Your task to perform on an android device: change text size in settings app Image 0: 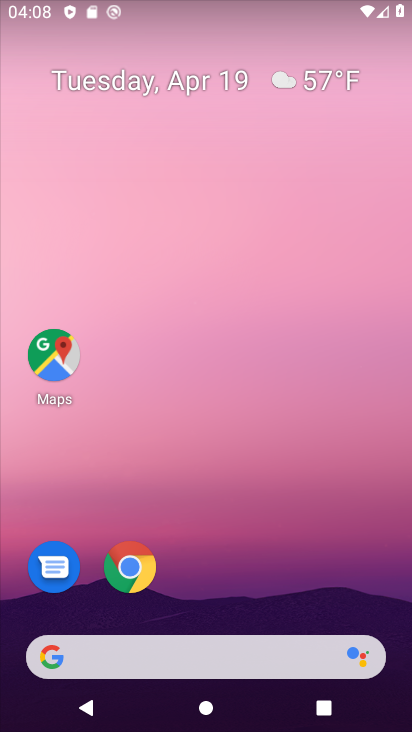
Step 0: drag from (340, 595) to (360, 162)
Your task to perform on an android device: change text size in settings app Image 1: 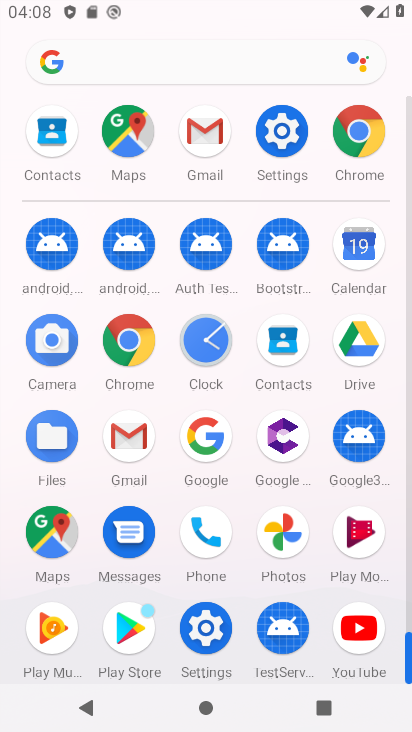
Step 1: click (287, 140)
Your task to perform on an android device: change text size in settings app Image 2: 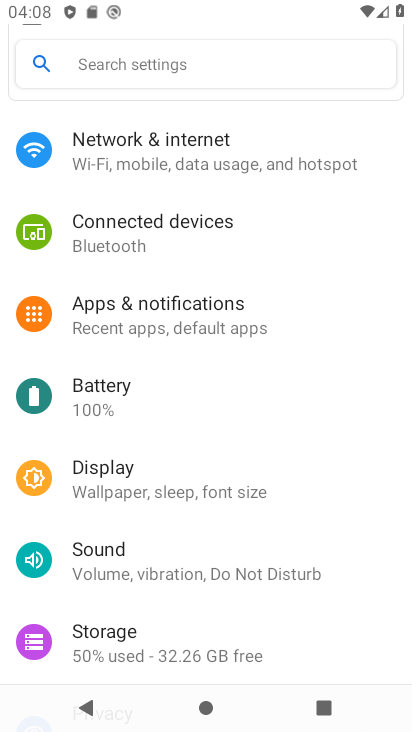
Step 2: drag from (353, 546) to (347, 422)
Your task to perform on an android device: change text size in settings app Image 3: 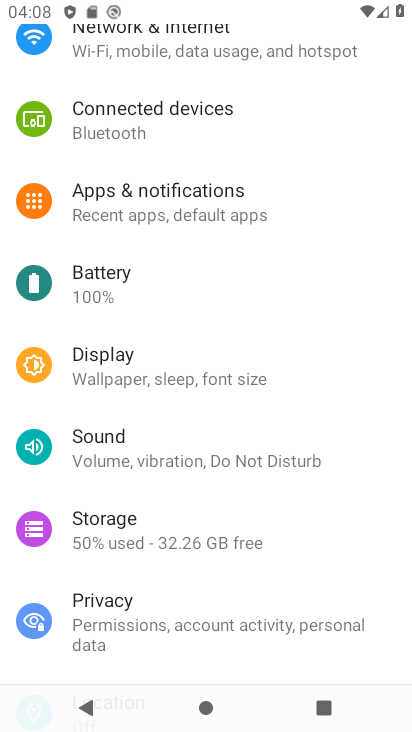
Step 3: drag from (382, 550) to (378, 394)
Your task to perform on an android device: change text size in settings app Image 4: 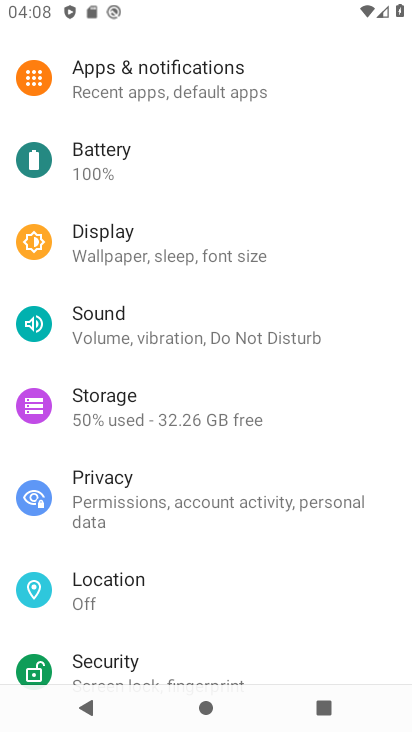
Step 4: drag from (377, 576) to (382, 430)
Your task to perform on an android device: change text size in settings app Image 5: 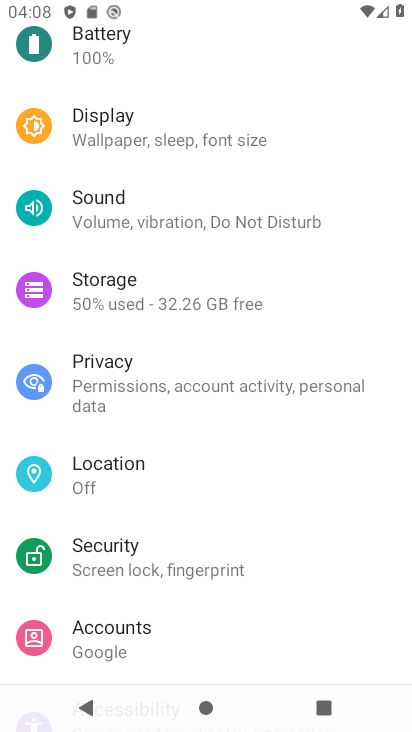
Step 5: drag from (363, 596) to (372, 416)
Your task to perform on an android device: change text size in settings app Image 6: 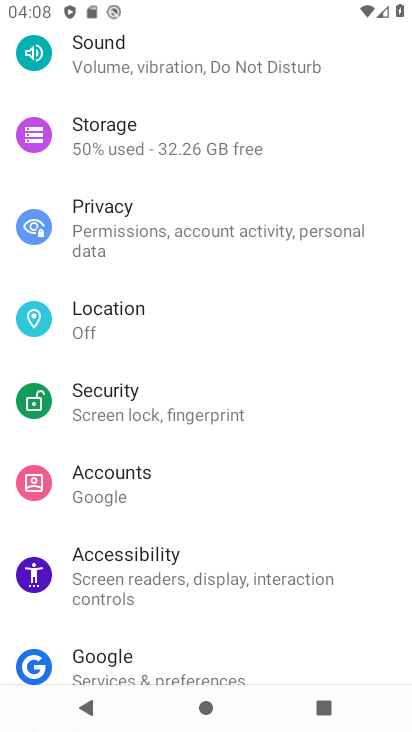
Step 6: drag from (362, 620) to (371, 469)
Your task to perform on an android device: change text size in settings app Image 7: 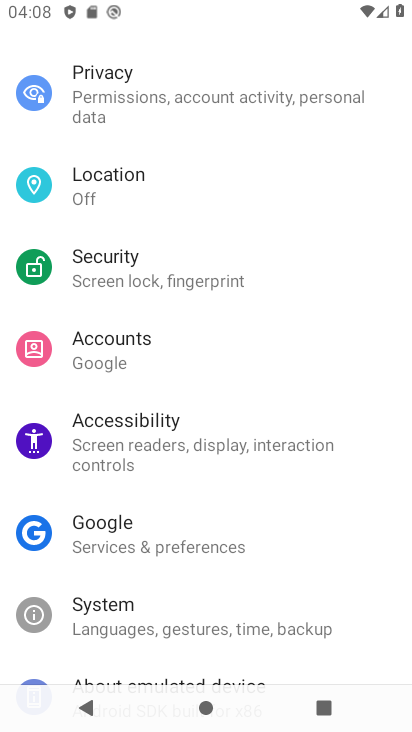
Step 7: drag from (373, 605) to (373, 475)
Your task to perform on an android device: change text size in settings app Image 8: 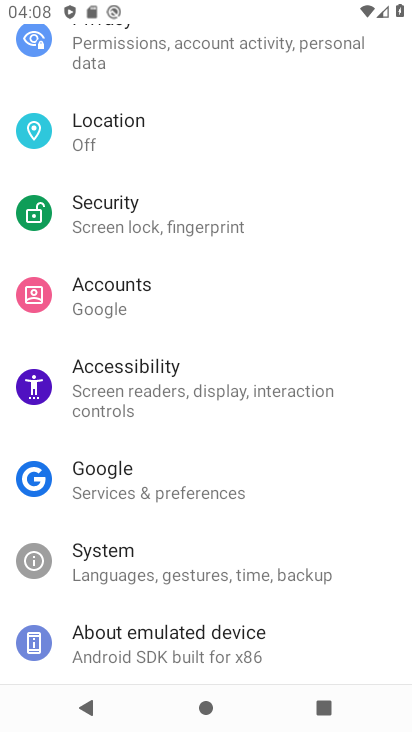
Step 8: drag from (363, 600) to (362, 459)
Your task to perform on an android device: change text size in settings app Image 9: 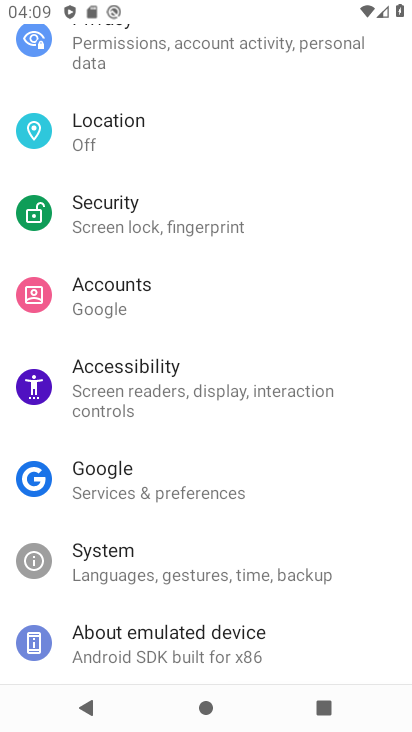
Step 9: drag from (370, 383) to (370, 508)
Your task to perform on an android device: change text size in settings app Image 10: 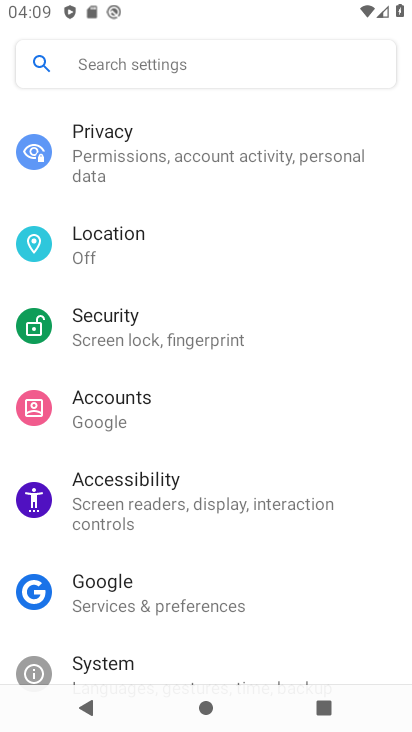
Step 10: drag from (370, 392) to (363, 530)
Your task to perform on an android device: change text size in settings app Image 11: 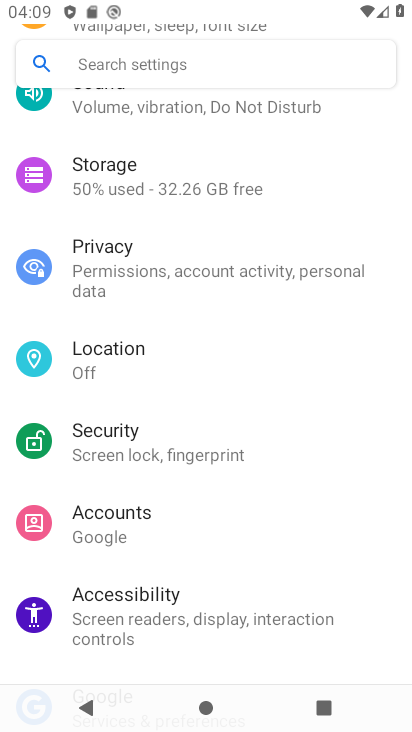
Step 11: drag from (373, 369) to (376, 499)
Your task to perform on an android device: change text size in settings app Image 12: 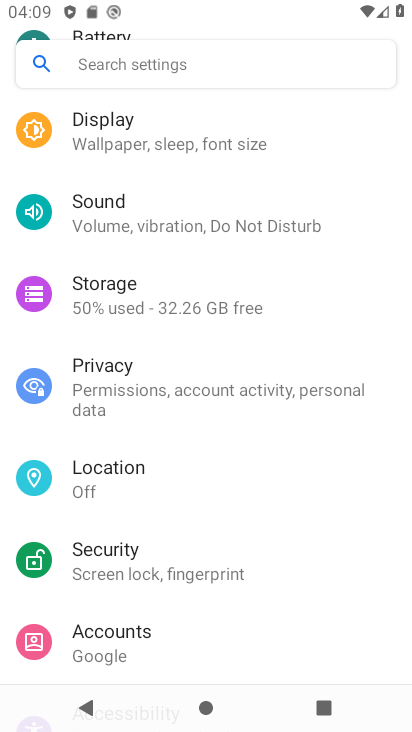
Step 12: drag from (389, 329) to (366, 510)
Your task to perform on an android device: change text size in settings app Image 13: 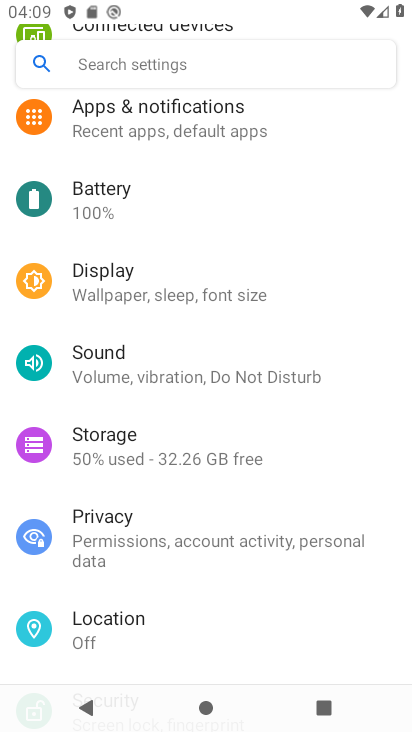
Step 13: drag from (362, 340) to (358, 463)
Your task to perform on an android device: change text size in settings app Image 14: 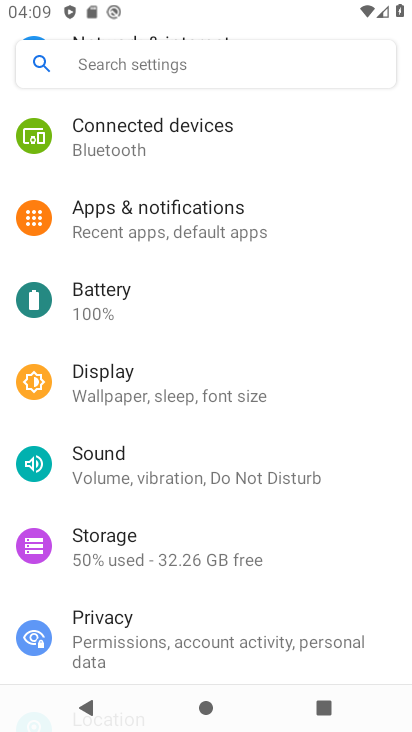
Step 14: click (255, 382)
Your task to perform on an android device: change text size in settings app Image 15: 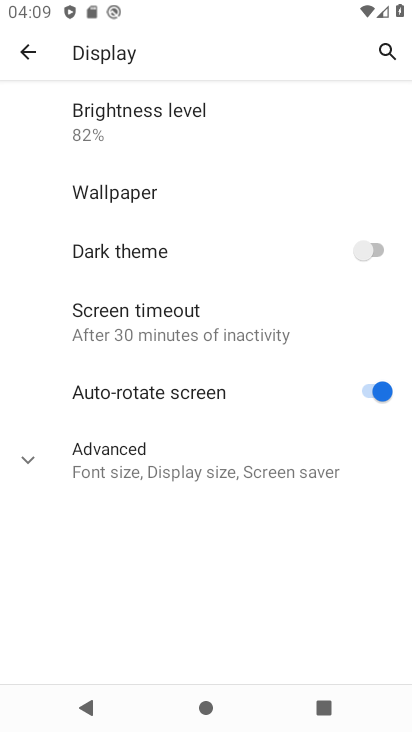
Step 15: click (237, 464)
Your task to perform on an android device: change text size in settings app Image 16: 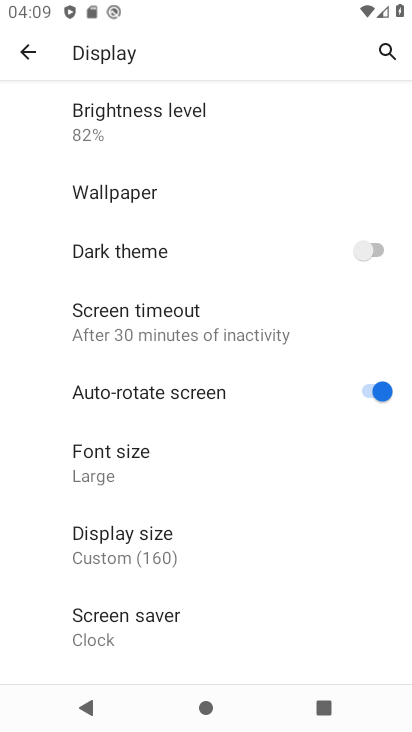
Step 16: click (99, 471)
Your task to perform on an android device: change text size in settings app Image 17: 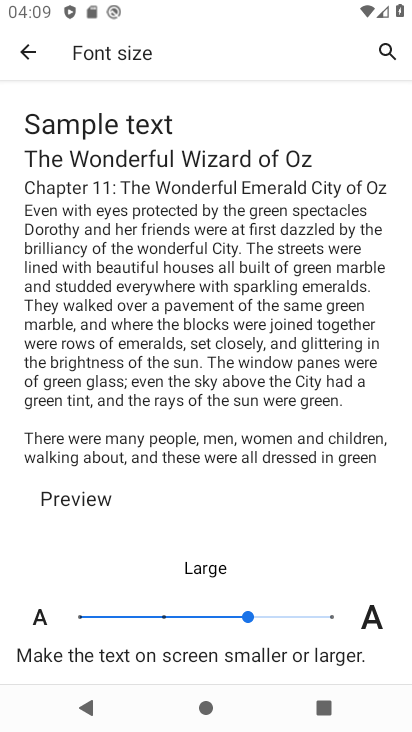
Step 17: click (167, 611)
Your task to perform on an android device: change text size in settings app Image 18: 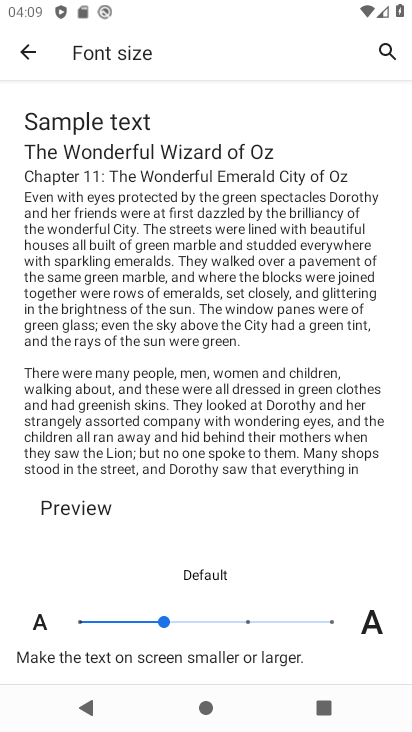
Step 18: task complete